Your task to perform on an android device: turn pop-ups on in chrome Image 0: 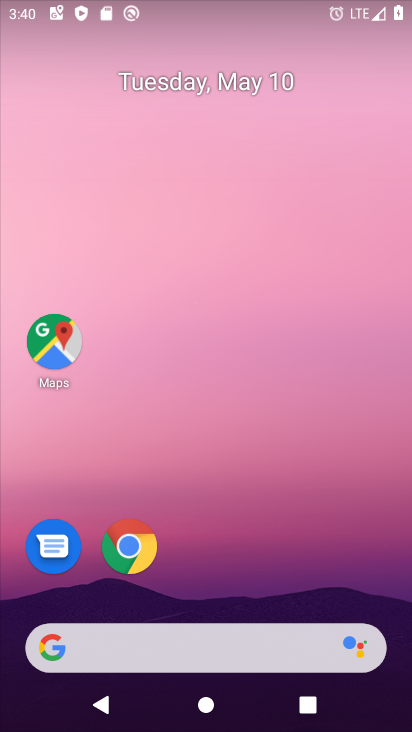
Step 0: click (139, 534)
Your task to perform on an android device: turn pop-ups on in chrome Image 1: 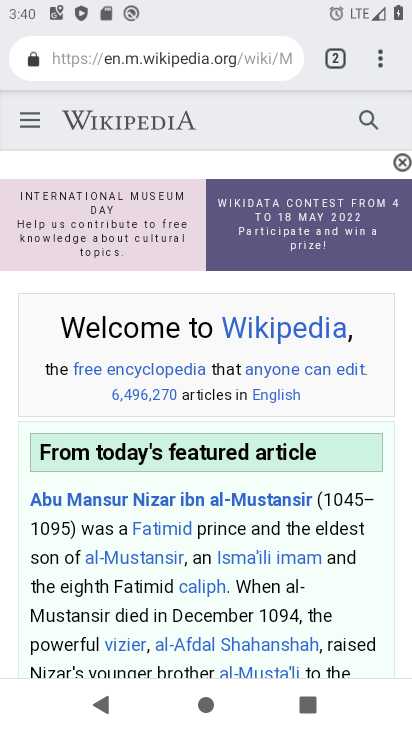
Step 1: click (380, 63)
Your task to perform on an android device: turn pop-ups on in chrome Image 2: 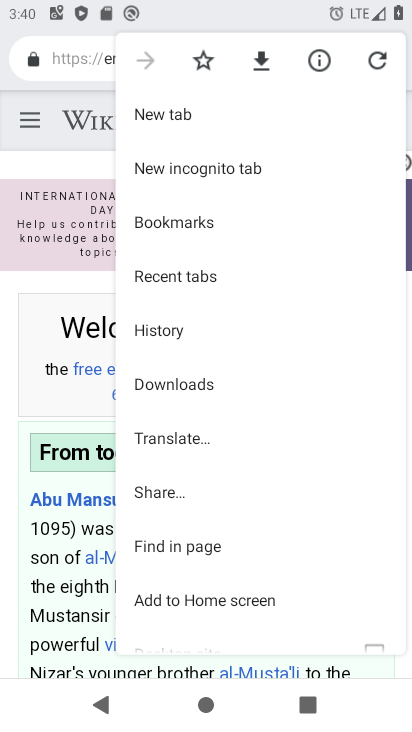
Step 2: drag from (207, 562) to (232, 276)
Your task to perform on an android device: turn pop-ups on in chrome Image 3: 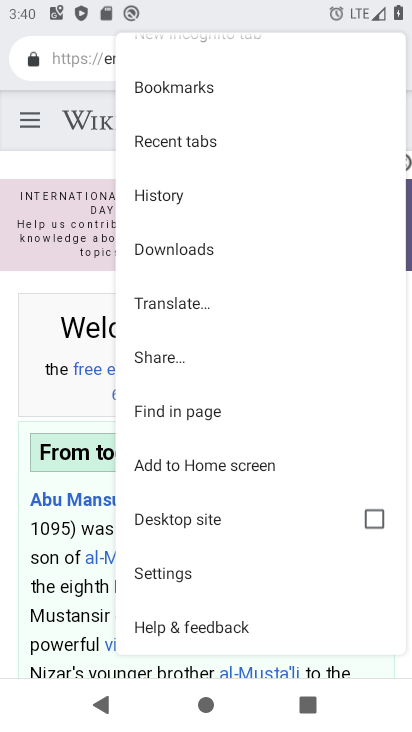
Step 3: click (193, 577)
Your task to perform on an android device: turn pop-ups on in chrome Image 4: 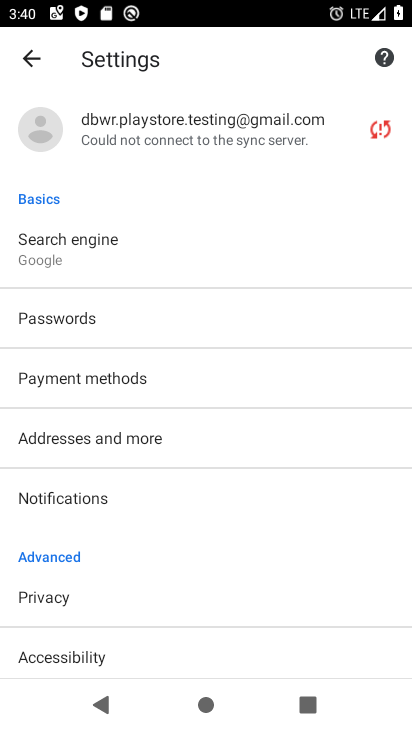
Step 4: drag from (133, 518) to (164, 284)
Your task to perform on an android device: turn pop-ups on in chrome Image 5: 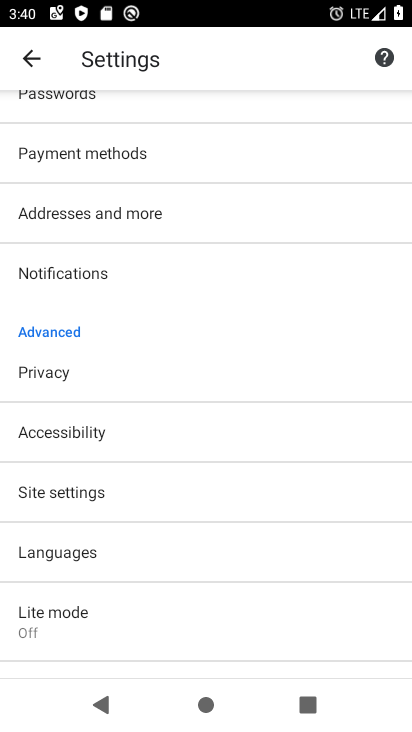
Step 5: click (73, 499)
Your task to perform on an android device: turn pop-ups on in chrome Image 6: 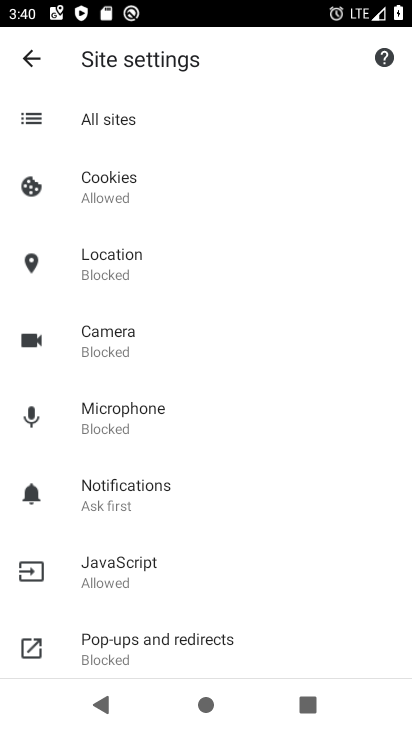
Step 6: drag from (160, 586) to (184, 419)
Your task to perform on an android device: turn pop-ups on in chrome Image 7: 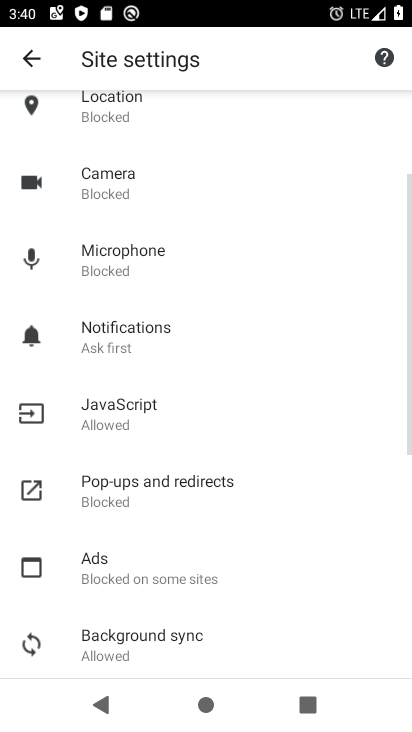
Step 7: click (166, 499)
Your task to perform on an android device: turn pop-ups on in chrome Image 8: 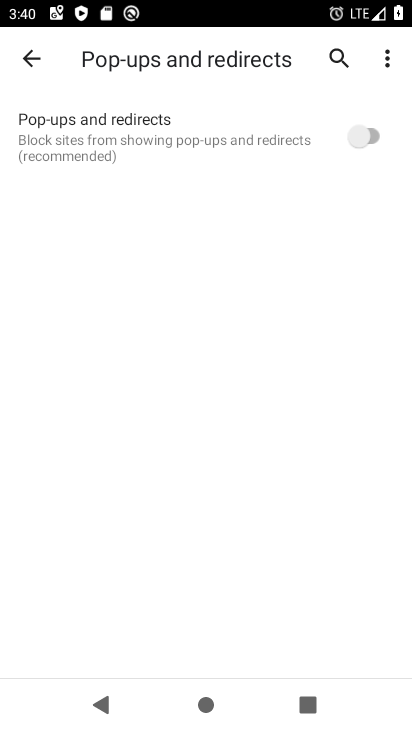
Step 8: click (343, 133)
Your task to perform on an android device: turn pop-ups on in chrome Image 9: 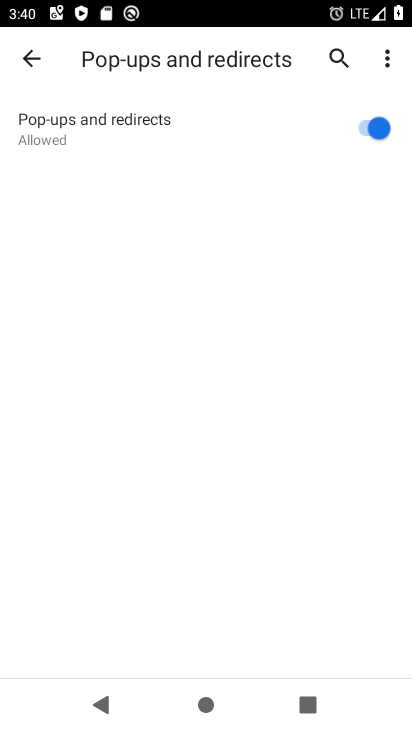
Step 9: task complete